Your task to perform on an android device: Open calendar and show me the third week of next month Image 0: 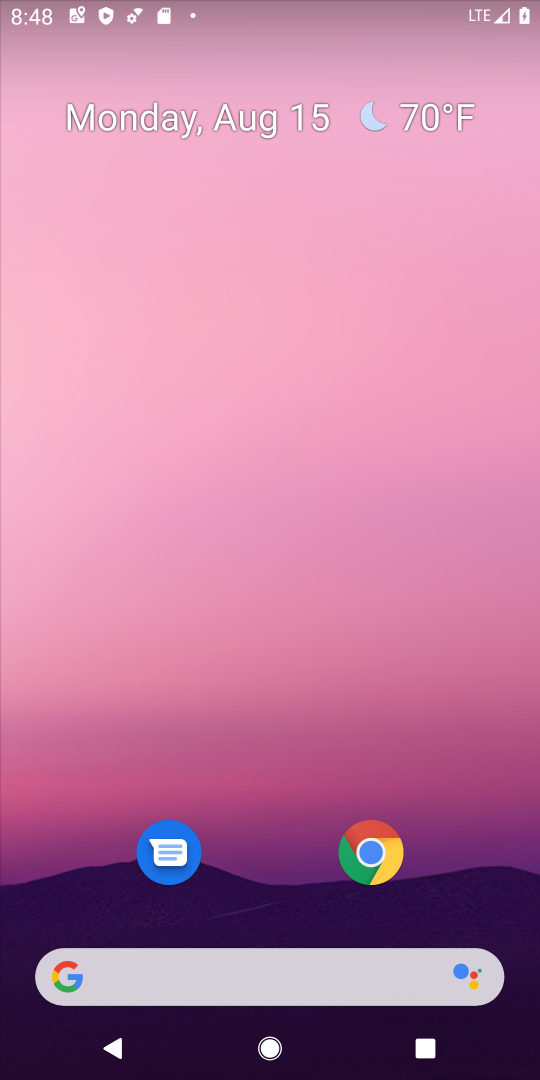
Step 0: drag from (232, 977) to (265, 132)
Your task to perform on an android device: Open calendar and show me the third week of next month Image 1: 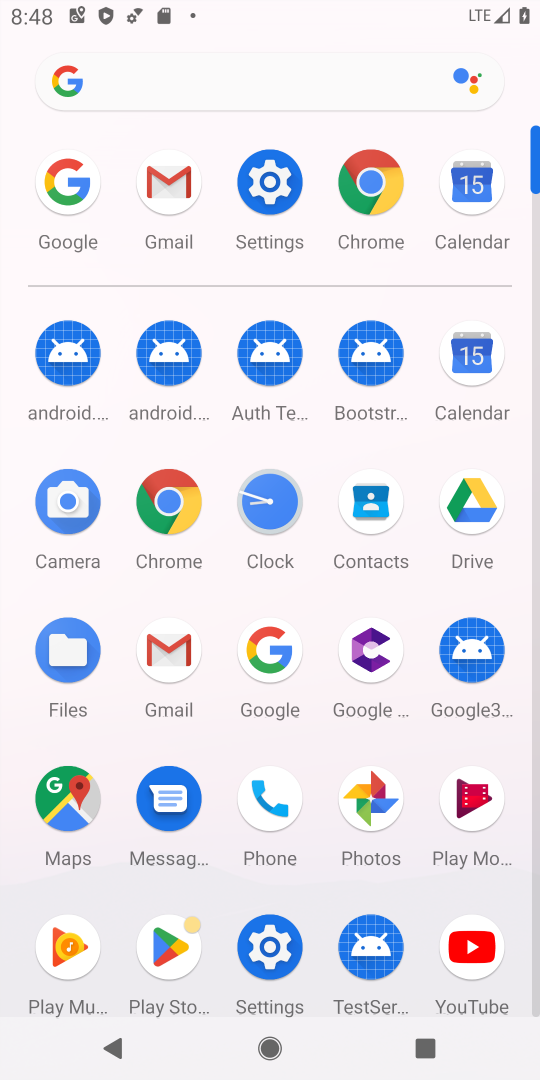
Step 1: click (470, 196)
Your task to perform on an android device: Open calendar and show me the third week of next month Image 2: 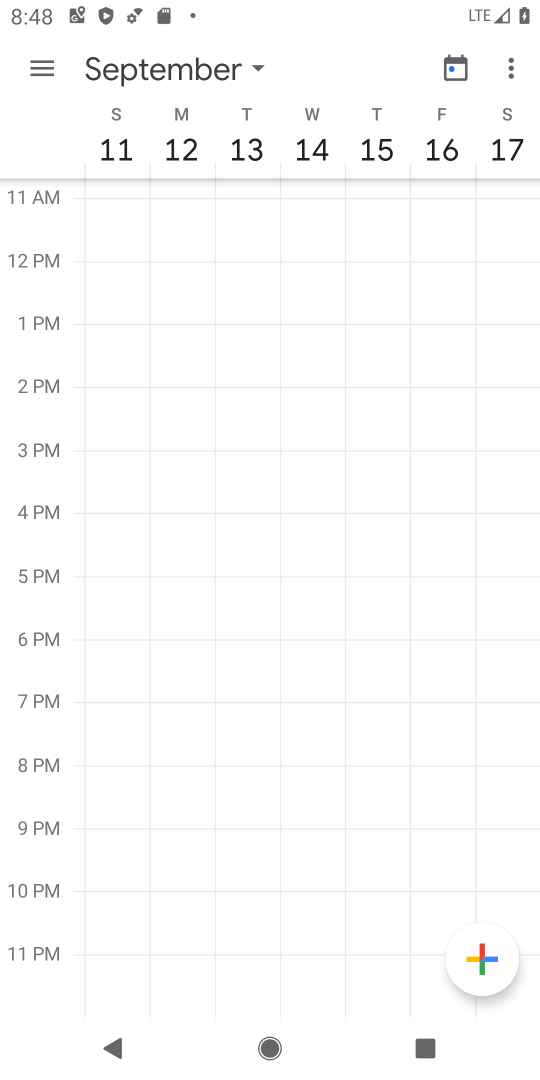
Step 2: click (457, 72)
Your task to perform on an android device: Open calendar and show me the third week of next month Image 3: 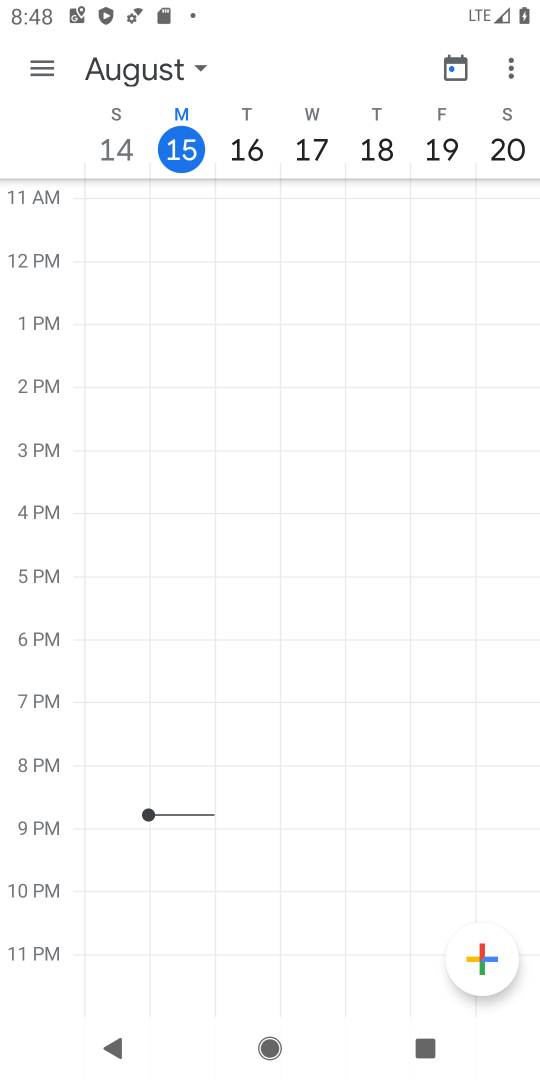
Step 3: click (196, 67)
Your task to perform on an android device: Open calendar and show me the third week of next month Image 4: 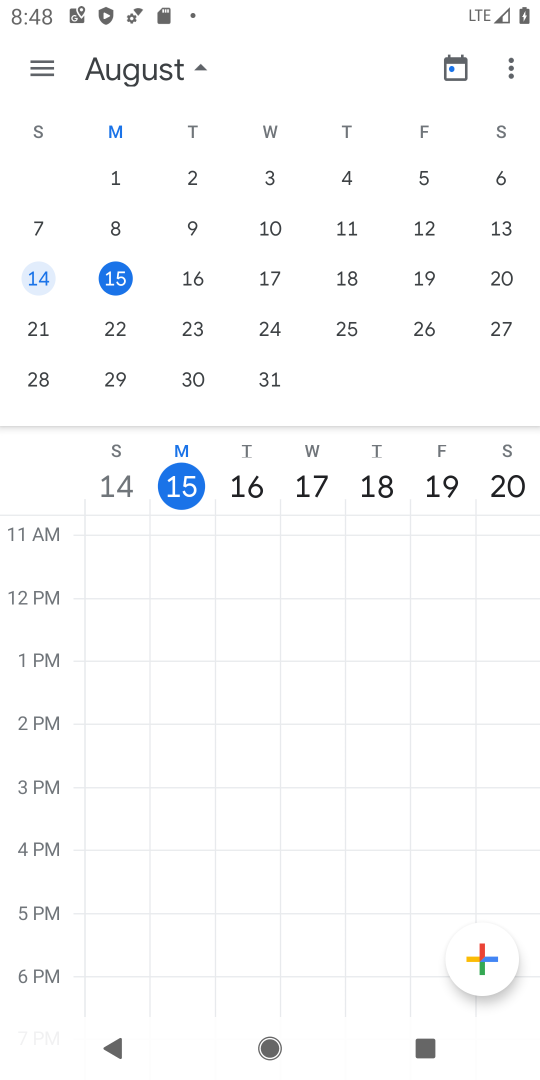
Step 4: drag from (473, 292) to (28, 276)
Your task to perform on an android device: Open calendar and show me the third week of next month Image 5: 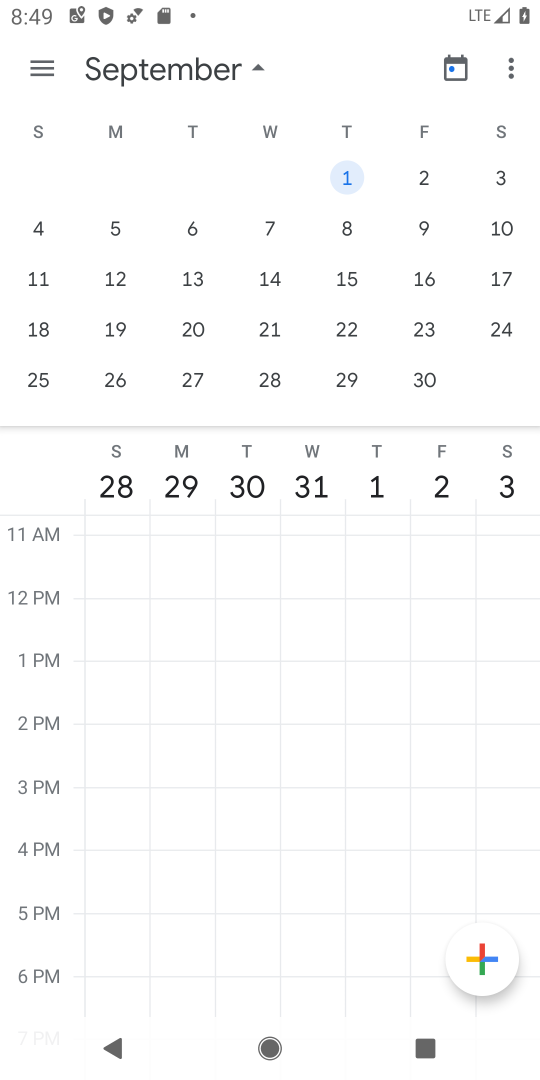
Step 5: click (125, 328)
Your task to perform on an android device: Open calendar and show me the third week of next month Image 6: 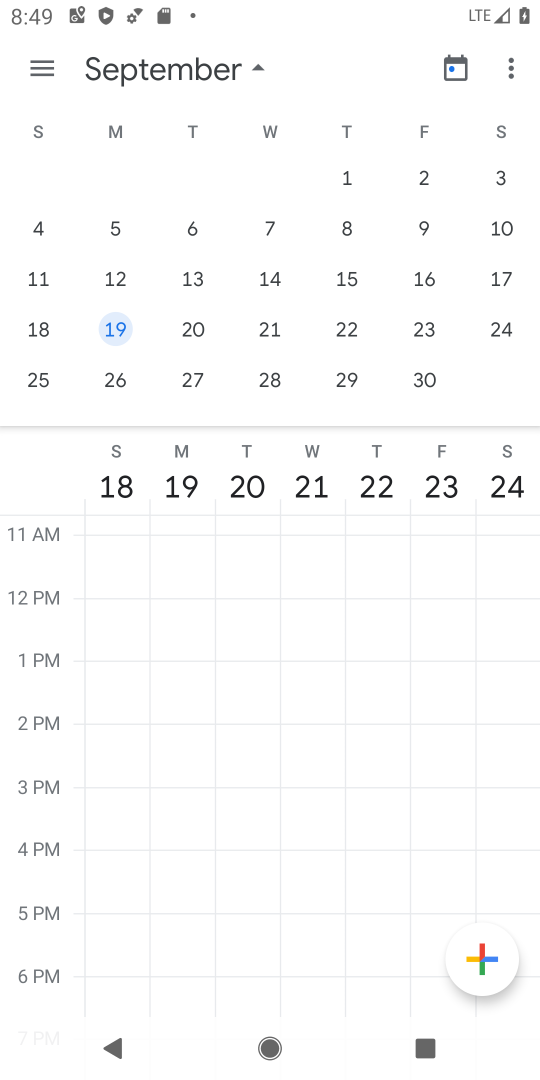
Step 6: click (41, 77)
Your task to perform on an android device: Open calendar and show me the third week of next month Image 7: 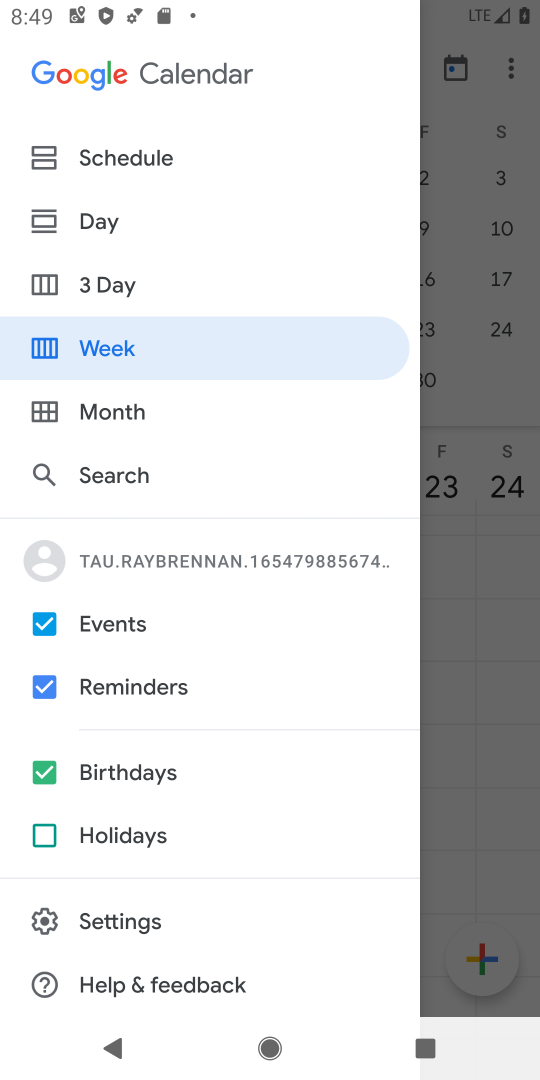
Step 7: click (150, 360)
Your task to perform on an android device: Open calendar and show me the third week of next month Image 8: 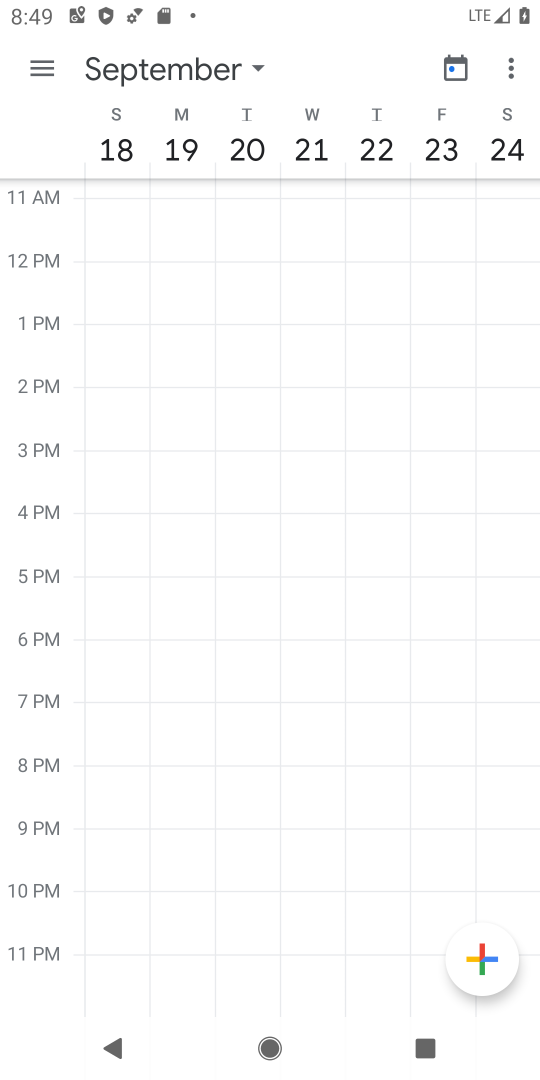
Step 8: task complete